Your task to perform on an android device: toggle airplane mode Image 0: 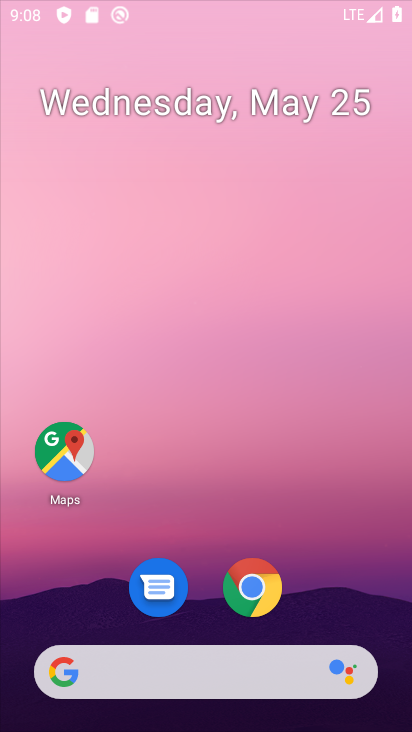
Step 0: click (204, 381)
Your task to perform on an android device: toggle airplane mode Image 1: 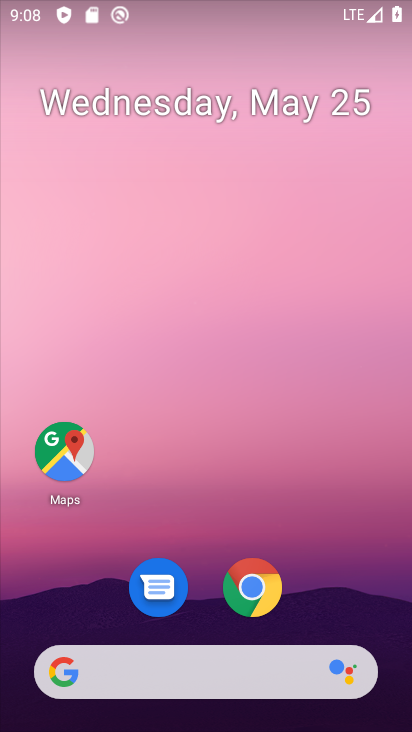
Step 1: drag from (212, 565) to (221, 245)
Your task to perform on an android device: toggle airplane mode Image 2: 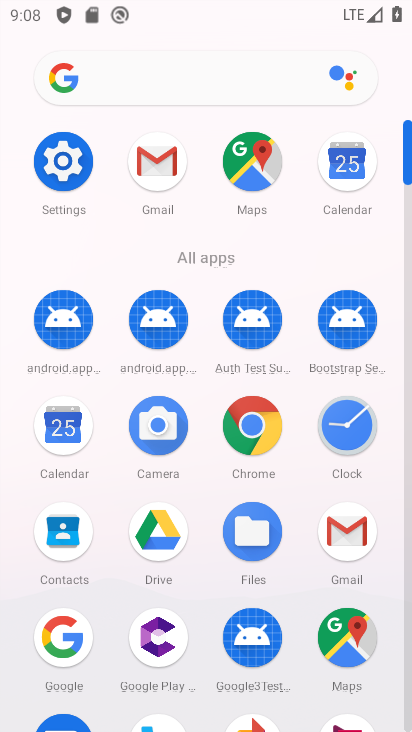
Step 2: click (86, 171)
Your task to perform on an android device: toggle airplane mode Image 3: 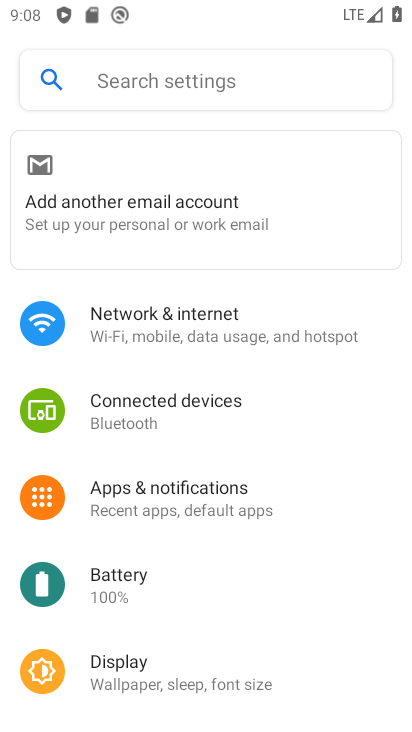
Step 3: click (189, 347)
Your task to perform on an android device: toggle airplane mode Image 4: 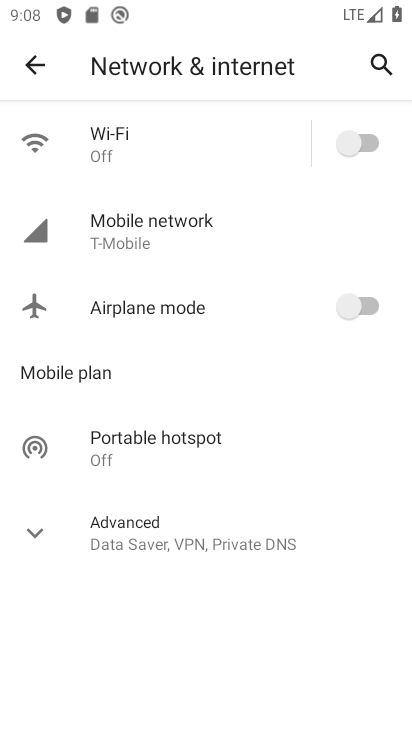
Step 4: click (385, 304)
Your task to perform on an android device: toggle airplane mode Image 5: 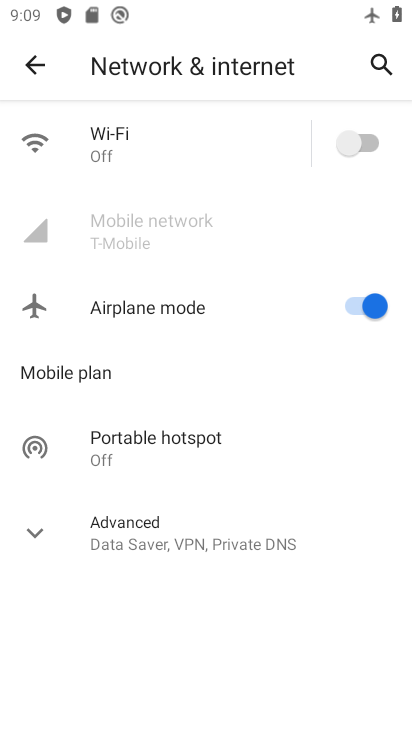
Step 5: task complete